Your task to perform on an android device: Search for the best gaming mouse on Best Buy. Image 0: 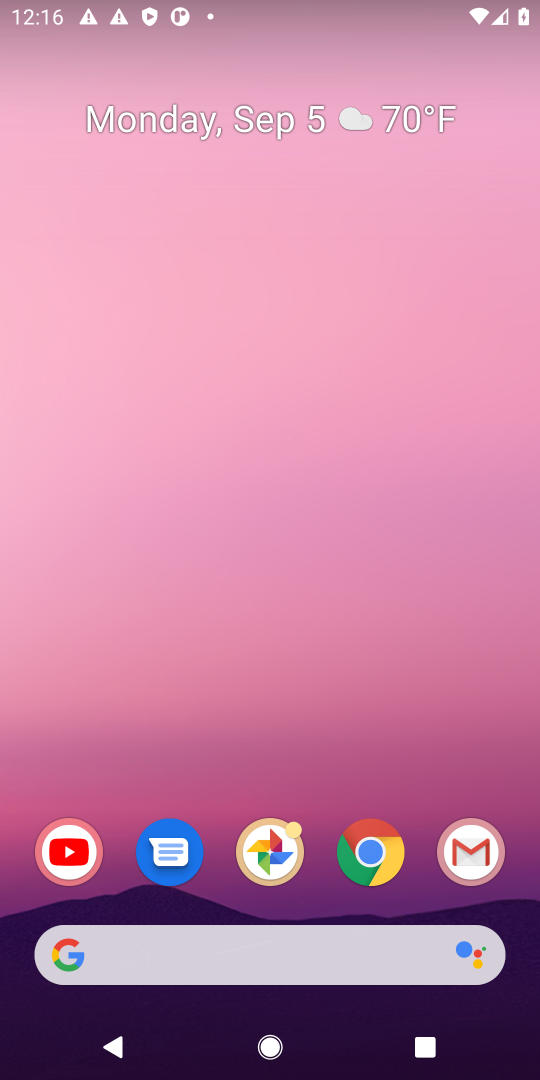
Step 0: click (372, 856)
Your task to perform on an android device: Search for the best gaming mouse on Best Buy. Image 1: 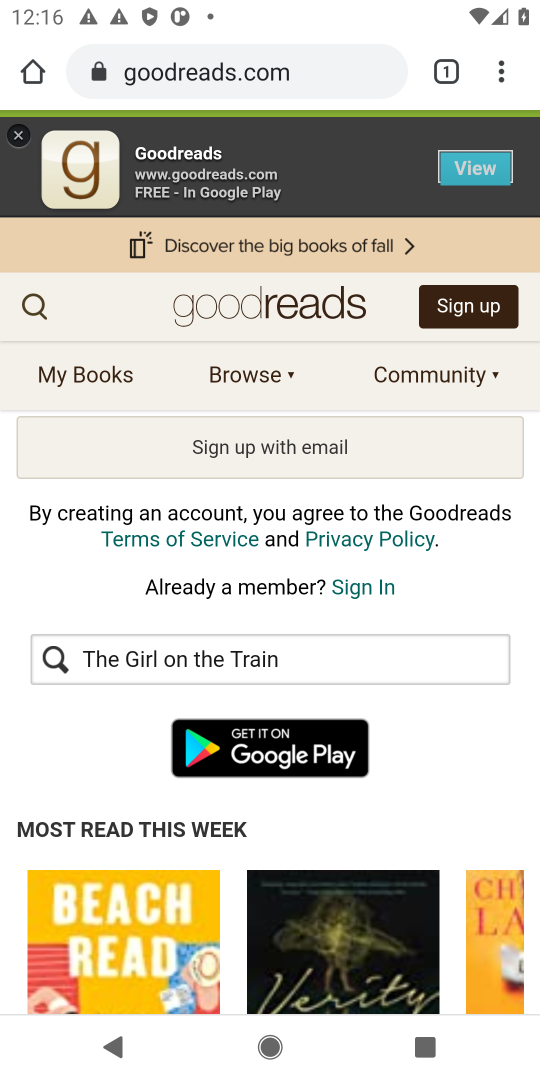
Step 1: click (313, 62)
Your task to perform on an android device: Search for the best gaming mouse on Best Buy. Image 2: 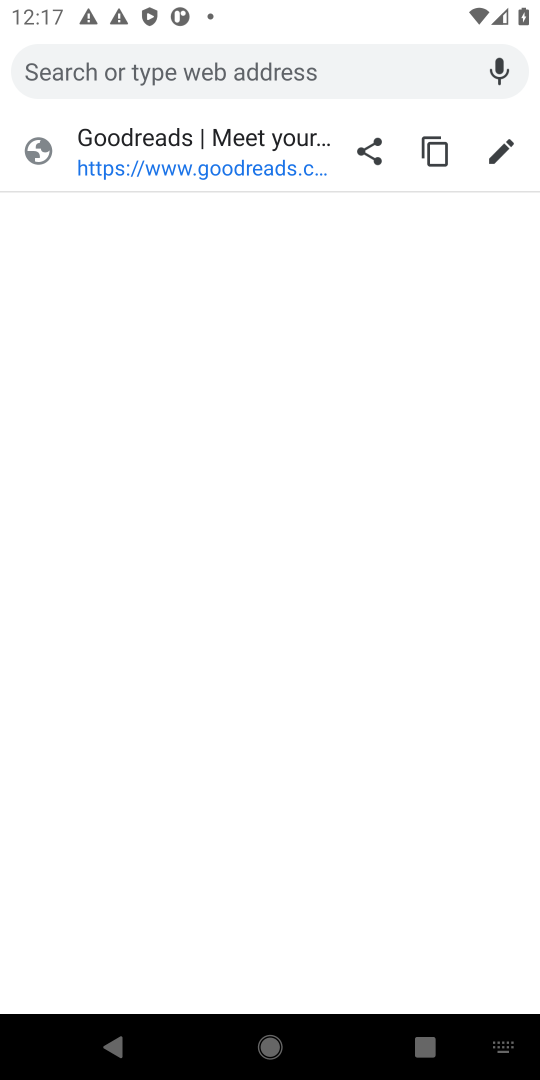
Step 2: type "Best buy"
Your task to perform on an android device: Search for the best gaming mouse on Best Buy. Image 3: 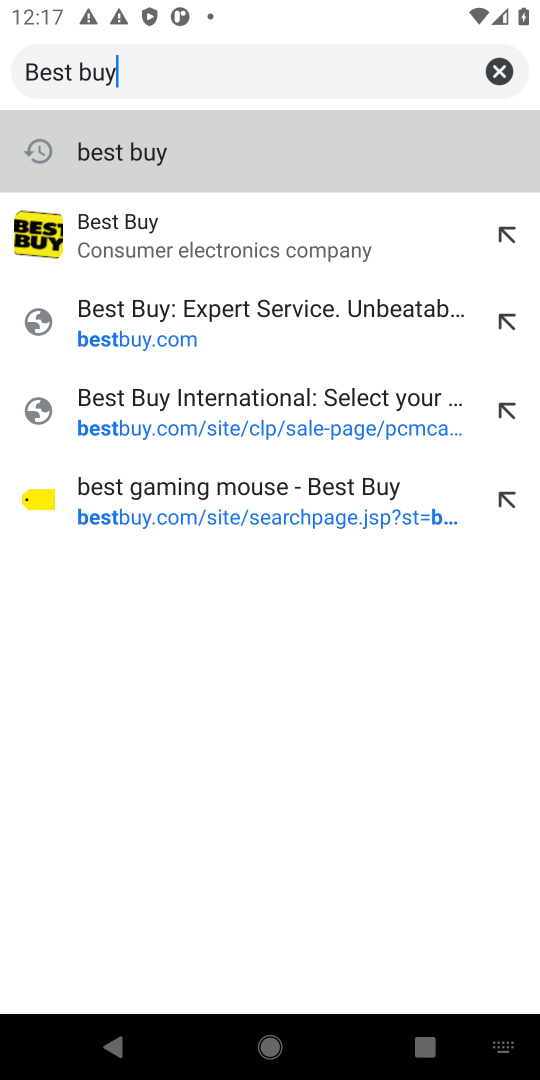
Step 3: click (94, 212)
Your task to perform on an android device: Search for the best gaming mouse on Best Buy. Image 4: 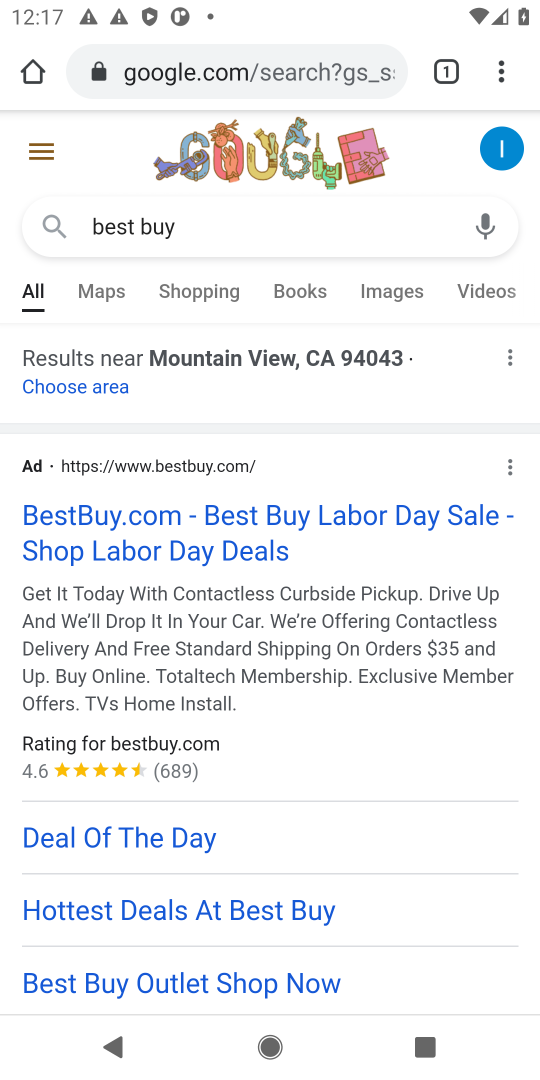
Step 4: click (86, 512)
Your task to perform on an android device: Search for the best gaming mouse on Best Buy. Image 5: 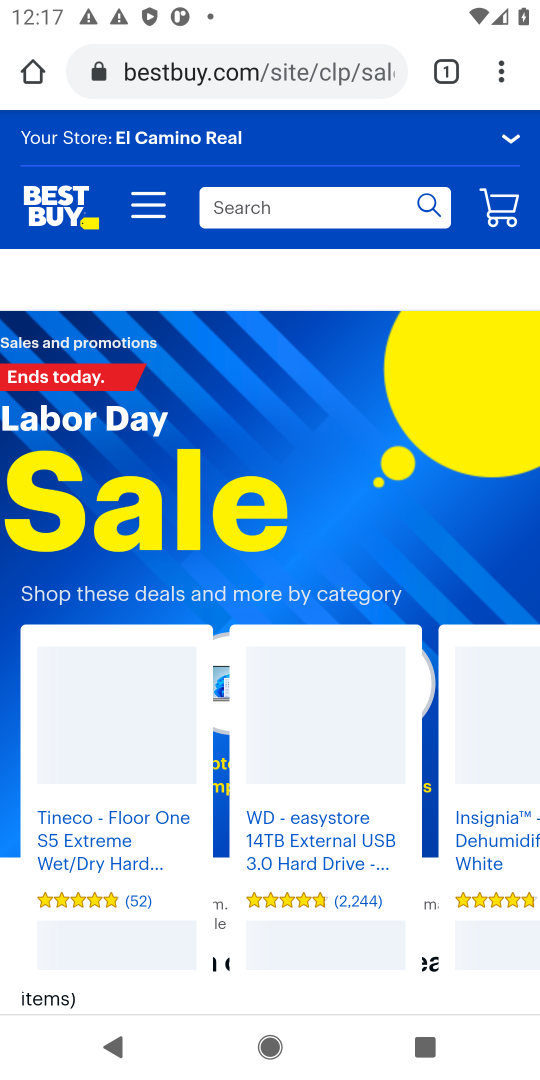
Step 5: click (263, 199)
Your task to perform on an android device: Search for the best gaming mouse on Best Buy. Image 6: 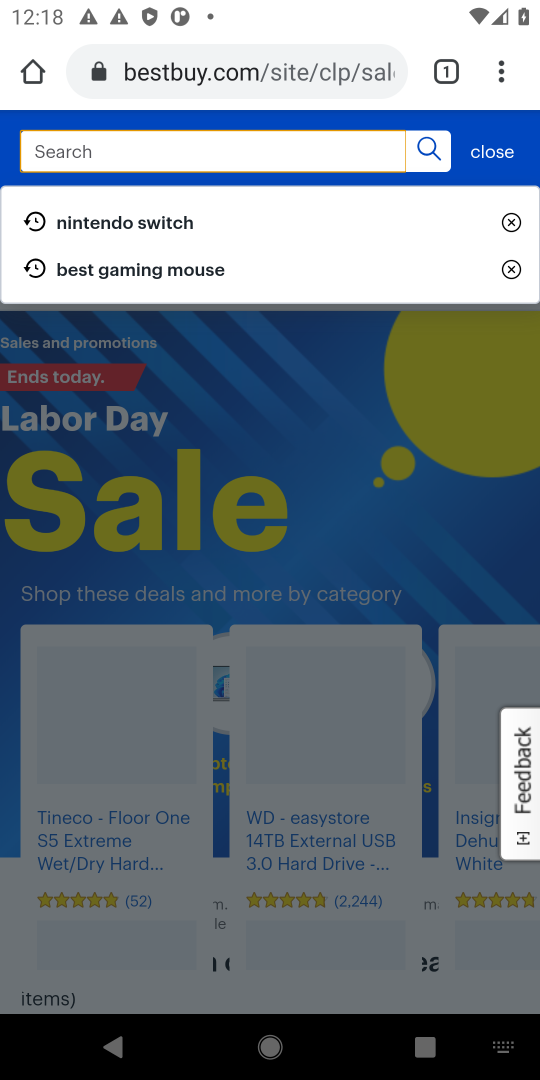
Step 6: type "gaming mouse"
Your task to perform on an android device: Search for the best gaming mouse on Best Buy. Image 7: 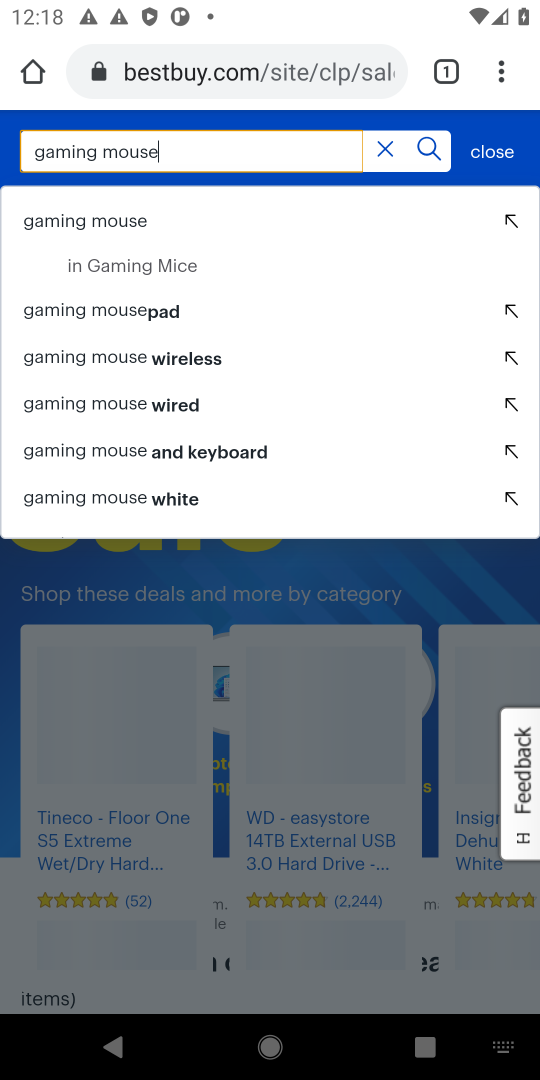
Step 7: click (79, 220)
Your task to perform on an android device: Search for the best gaming mouse on Best Buy. Image 8: 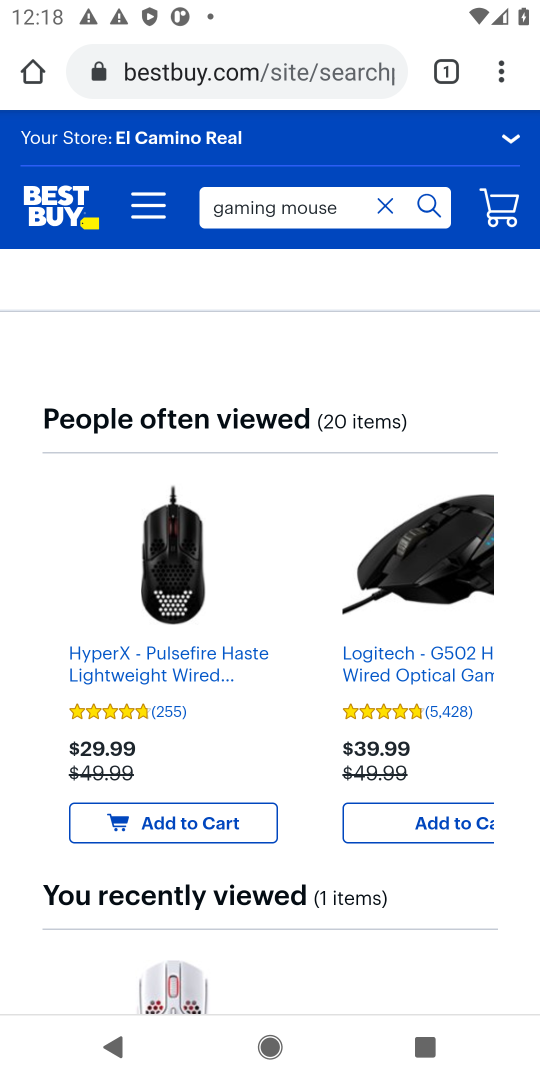
Step 8: task complete